Your task to perform on an android device: Open internet settings Image 0: 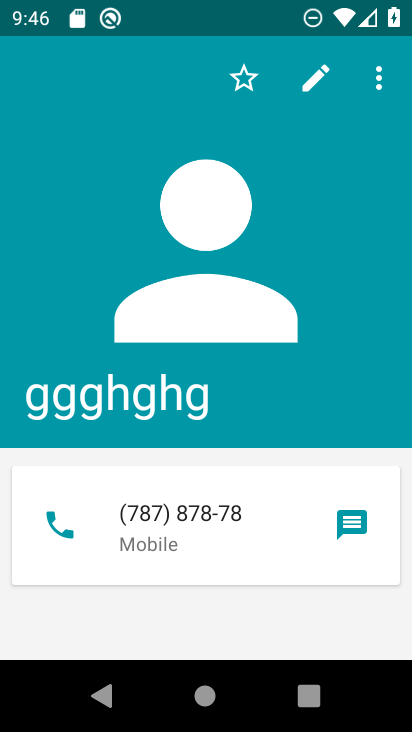
Step 0: press home button
Your task to perform on an android device: Open internet settings Image 1: 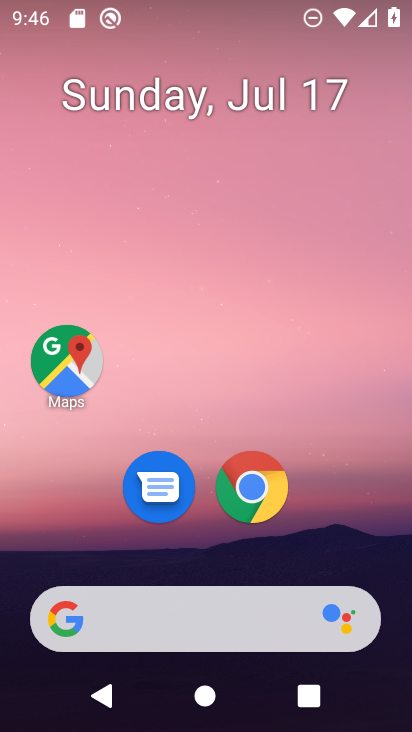
Step 1: drag from (312, 545) to (324, 0)
Your task to perform on an android device: Open internet settings Image 2: 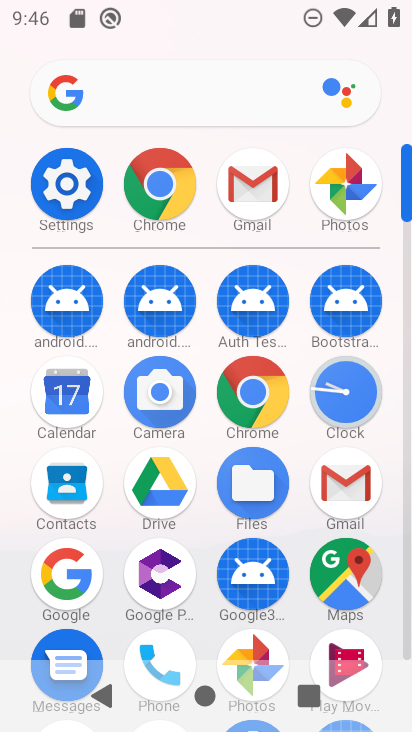
Step 2: click (57, 163)
Your task to perform on an android device: Open internet settings Image 3: 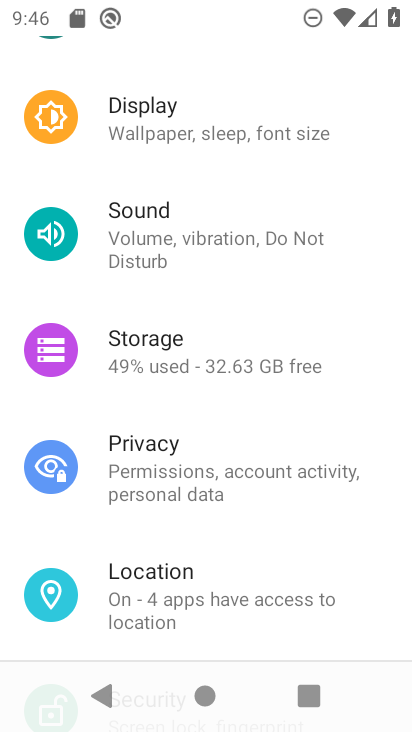
Step 3: drag from (295, 173) to (291, 504)
Your task to perform on an android device: Open internet settings Image 4: 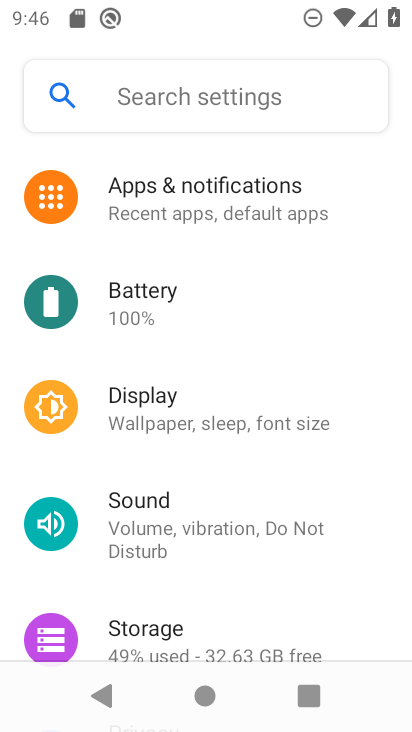
Step 4: drag from (350, 208) to (172, 720)
Your task to perform on an android device: Open internet settings Image 5: 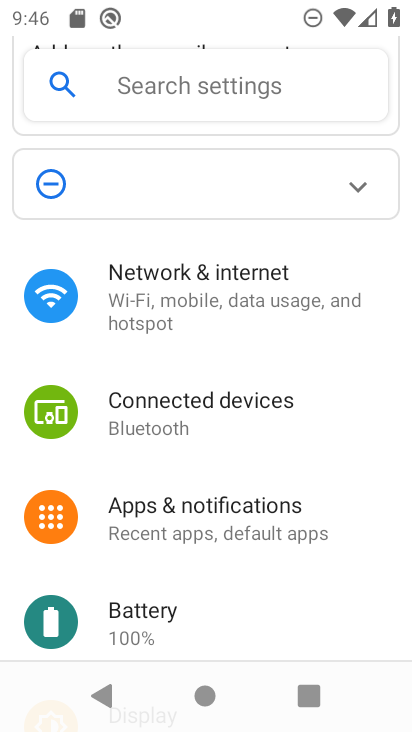
Step 5: click (237, 277)
Your task to perform on an android device: Open internet settings Image 6: 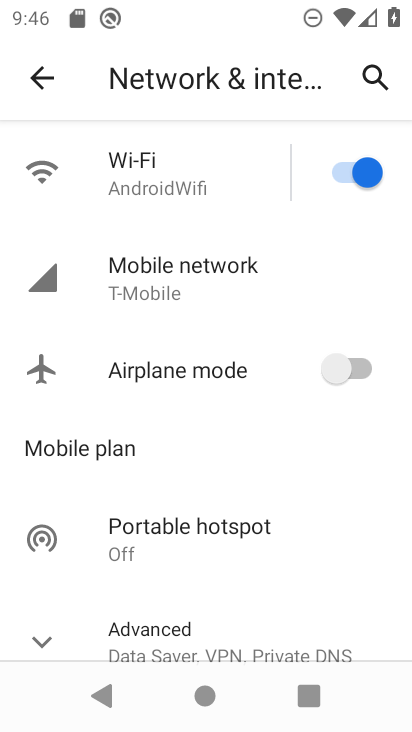
Step 6: task complete